Your task to perform on an android device: turn on notifications settings in the gmail app Image 0: 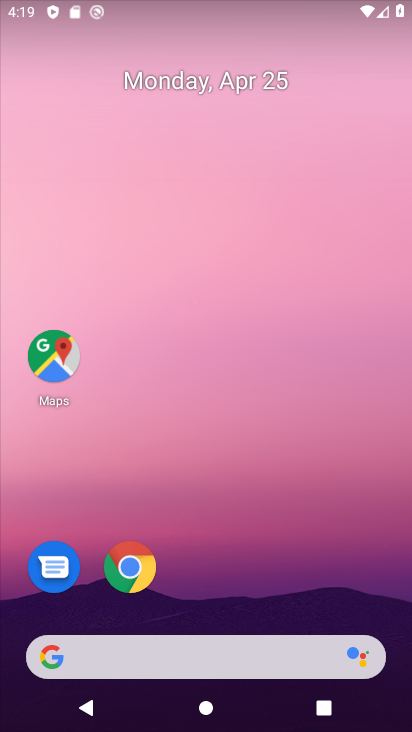
Step 0: drag from (200, 598) to (319, 123)
Your task to perform on an android device: turn on notifications settings in the gmail app Image 1: 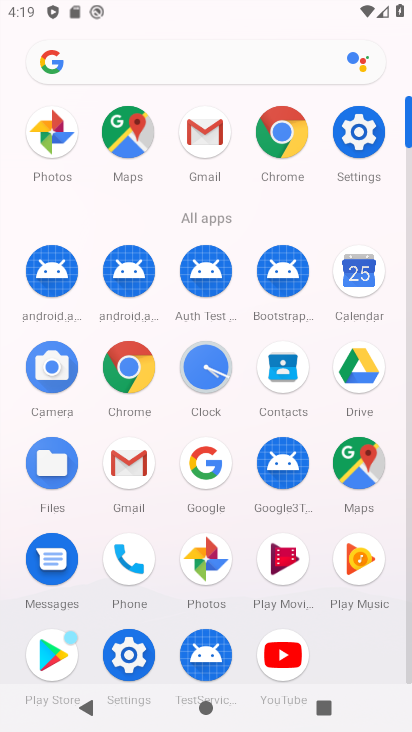
Step 1: click (206, 128)
Your task to perform on an android device: turn on notifications settings in the gmail app Image 2: 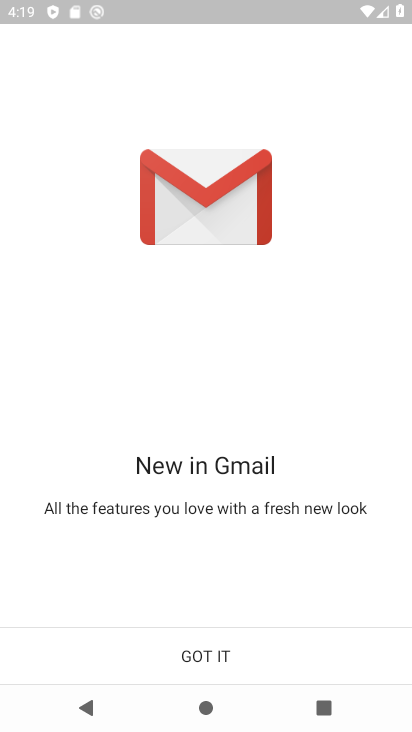
Step 2: press back button
Your task to perform on an android device: turn on notifications settings in the gmail app Image 3: 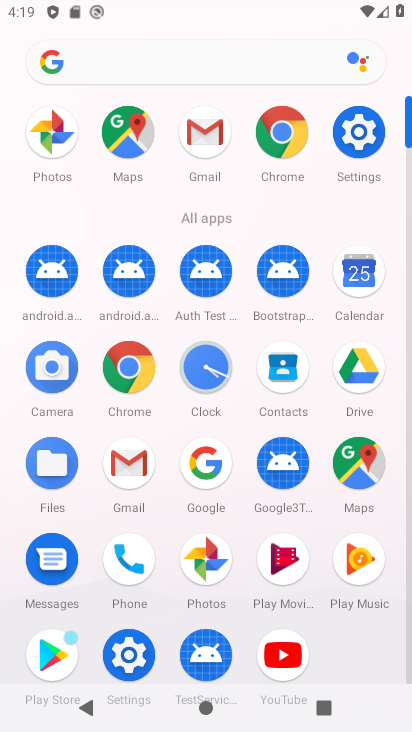
Step 3: click (199, 120)
Your task to perform on an android device: turn on notifications settings in the gmail app Image 4: 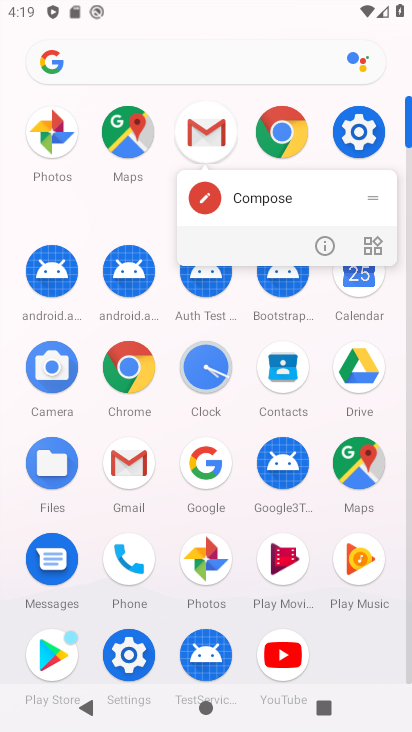
Step 4: click (340, 251)
Your task to perform on an android device: turn on notifications settings in the gmail app Image 5: 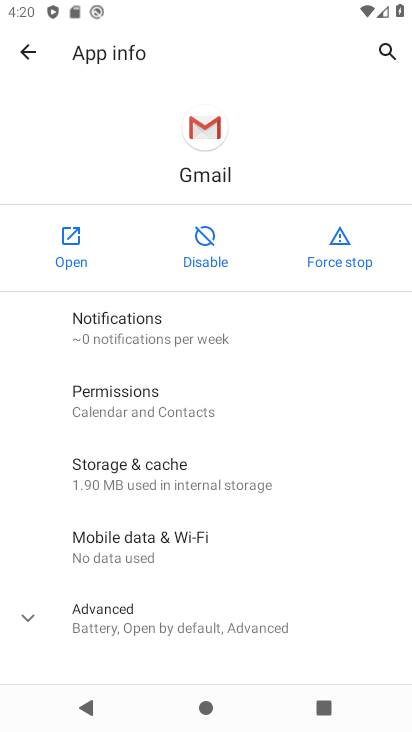
Step 5: click (156, 333)
Your task to perform on an android device: turn on notifications settings in the gmail app Image 6: 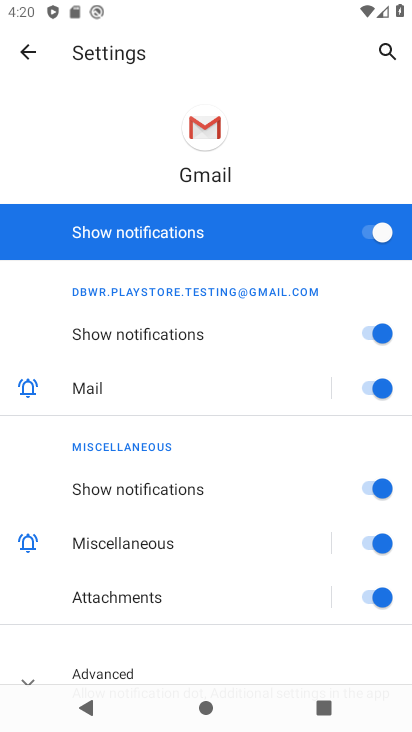
Step 6: task complete